Your task to perform on an android device: turn on priority inbox in the gmail app Image 0: 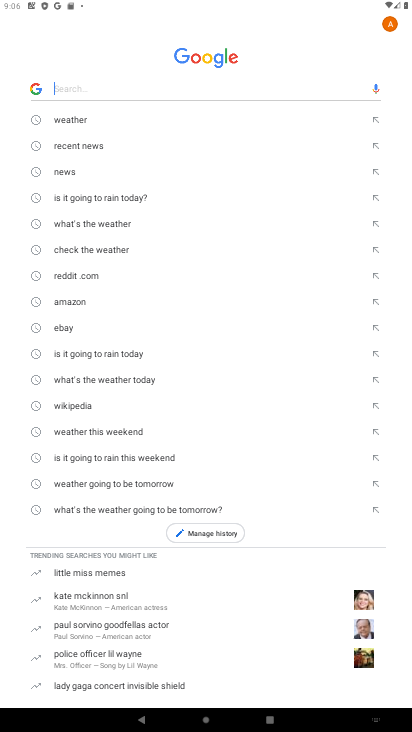
Step 0: press home button
Your task to perform on an android device: turn on priority inbox in the gmail app Image 1: 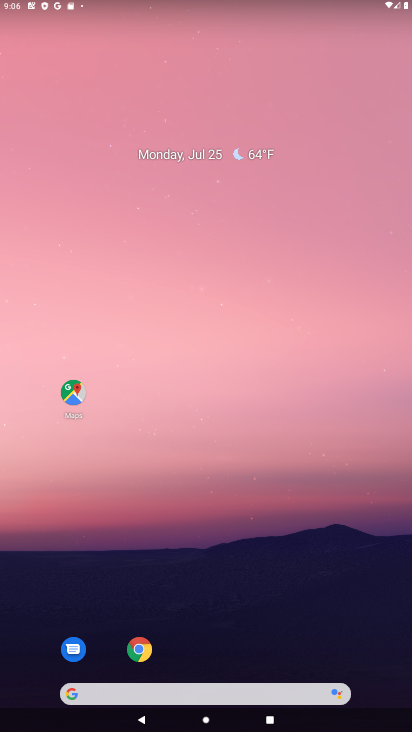
Step 1: drag from (260, 644) to (237, 212)
Your task to perform on an android device: turn on priority inbox in the gmail app Image 2: 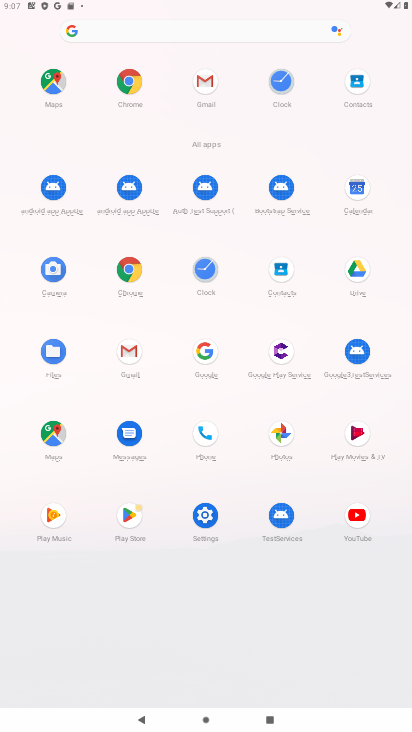
Step 2: click (118, 348)
Your task to perform on an android device: turn on priority inbox in the gmail app Image 3: 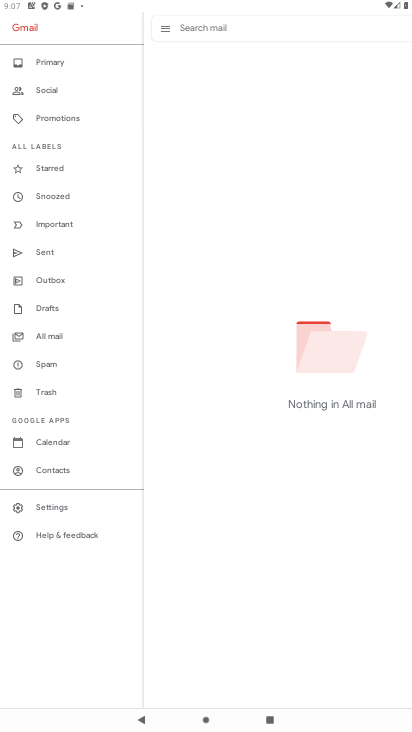
Step 3: click (60, 510)
Your task to perform on an android device: turn on priority inbox in the gmail app Image 4: 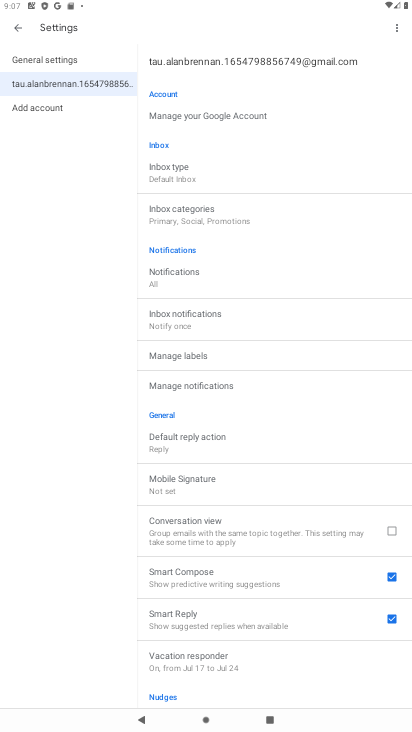
Step 4: click (195, 167)
Your task to perform on an android device: turn on priority inbox in the gmail app Image 5: 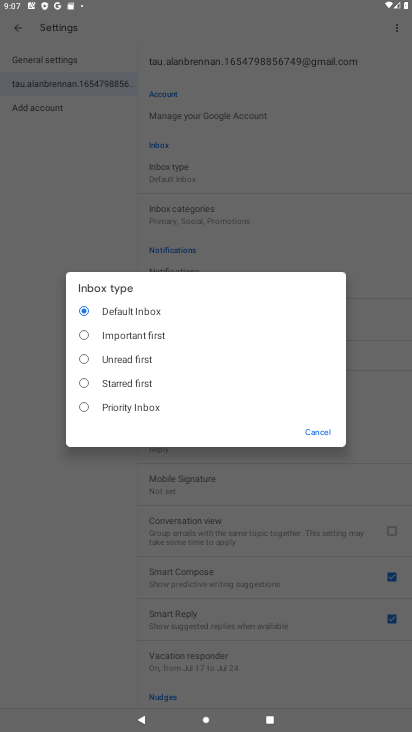
Step 5: click (111, 409)
Your task to perform on an android device: turn on priority inbox in the gmail app Image 6: 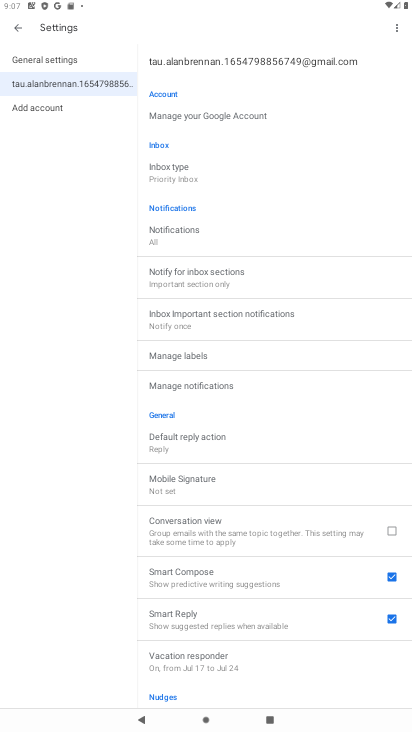
Step 6: task complete